Your task to perform on an android device: check the backup settings in the google photos Image 0: 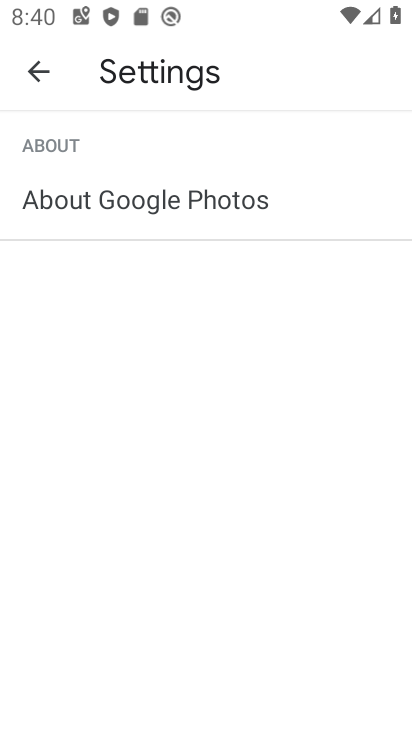
Step 0: press home button
Your task to perform on an android device: check the backup settings in the google photos Image 1: 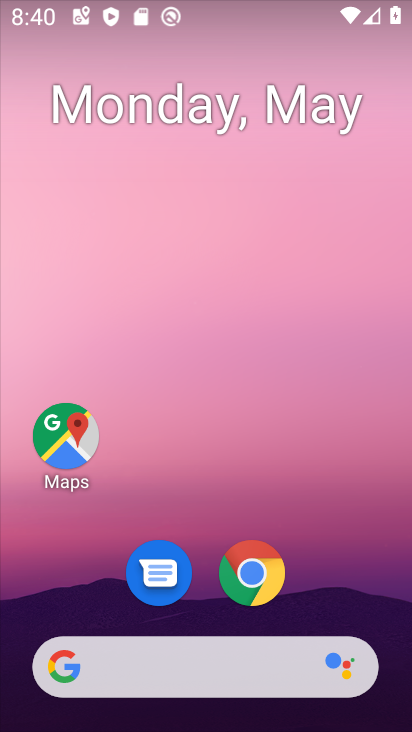
Step 1: drag from (358, 588) to (279, 172)
Your task to perform on an android device: check the backup settings in the google photos Image 2: 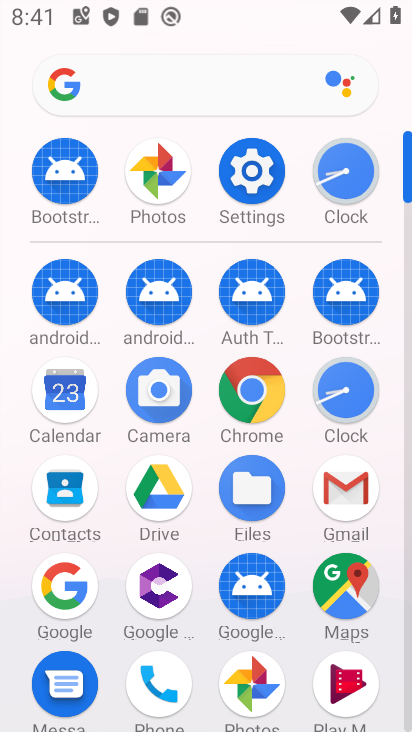
Step 2: click (257, 682)
Your task to perform on an android device: check the backup settings in the google photos Image 3: 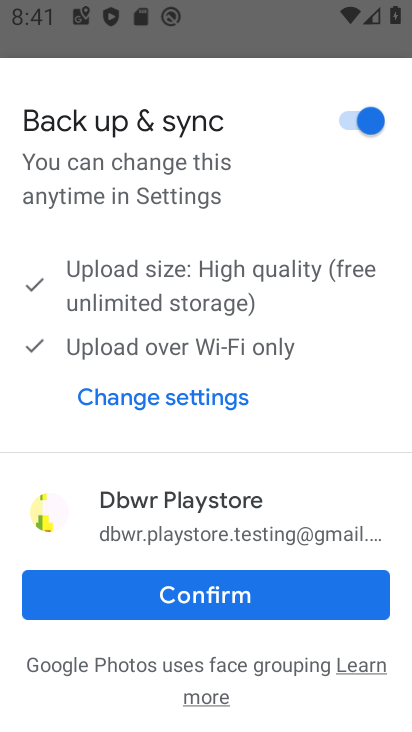
Step 3: click (192, 409)
Your task to perform on an android device: check the backup settings in the google photos Image 4: 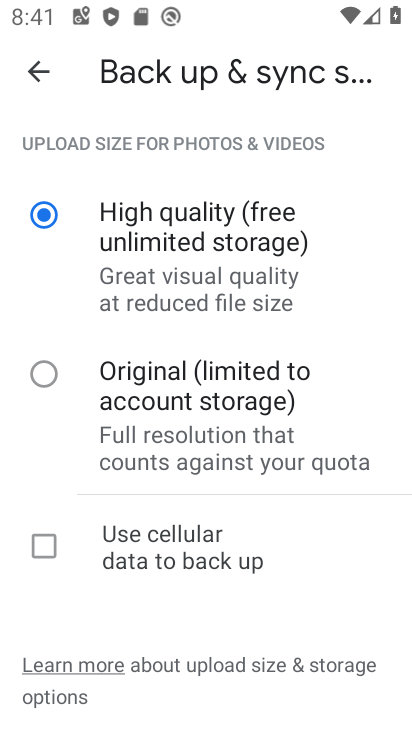
Step 4: task complete